Your task to perform on an android device: Go to Reddit.com Image 0: 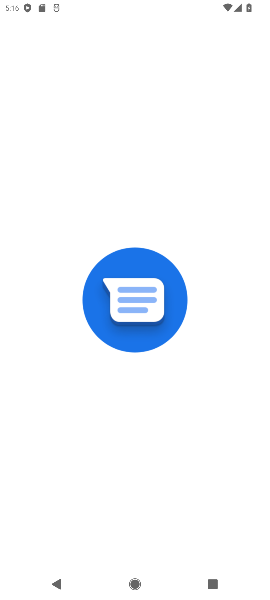
Step 0: press home button
Your task to perform on an android device: Go to Reddit.com Image 1: 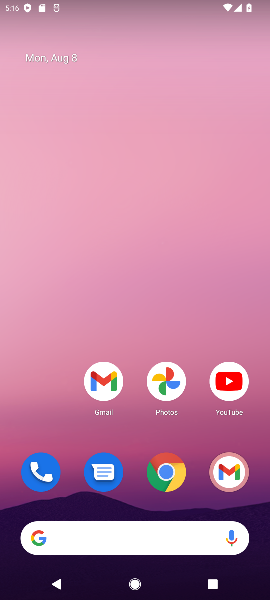
Step 1: click (36, 535)
Your task to perform on an android device: Go to Reddit.com Image 2: 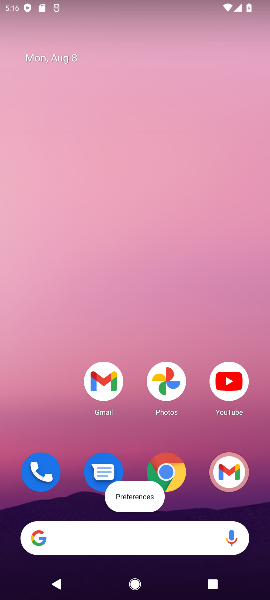
Step 2: click (43, 534)
Your task to perform on an android device: Go to Reddit.com Image 3: 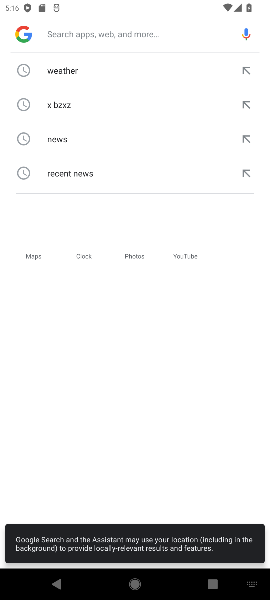
Step 3: type " Reddit.com"
Your task to perform on an android device: Go to Reddit.com Image 4: 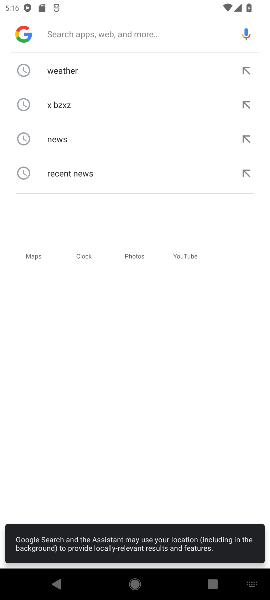
Step 4: click (75, 31)
Your task to perform on an android device: Go to Reddit.com Image 5: 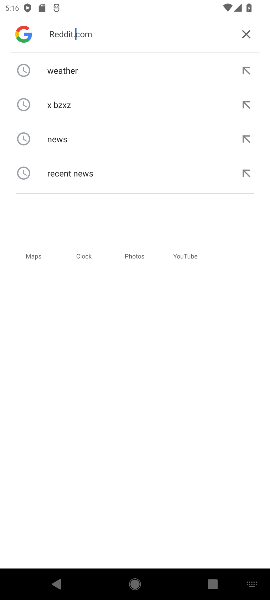
Step 5: press enter
Your task to perform on an android device: Go to Reddit.com Image 6: 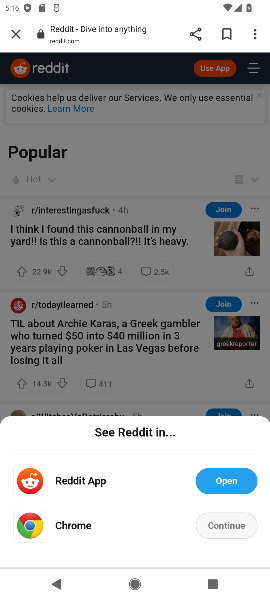
Step 6: task complete